Your task to perform on an android device: Open wifi settings Image 0: 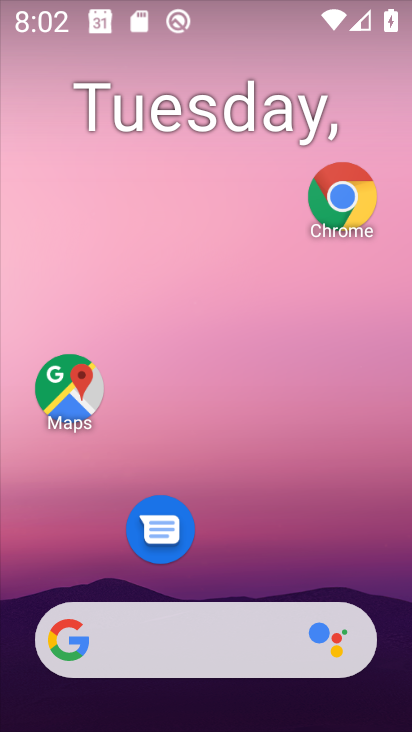
Step 0: drag from (233, 574) to (251, 3)
Your task to perform on an android device: Open wifi settings Image 1: 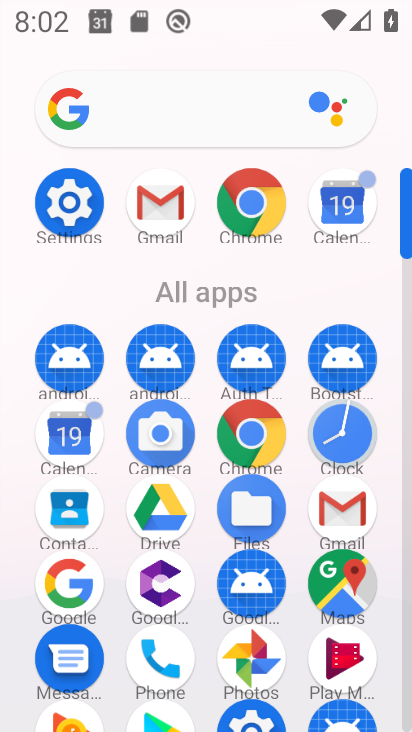
Step 1: click (71, 202)
Your task to perform on an android device: Open wifi settings Image 2: 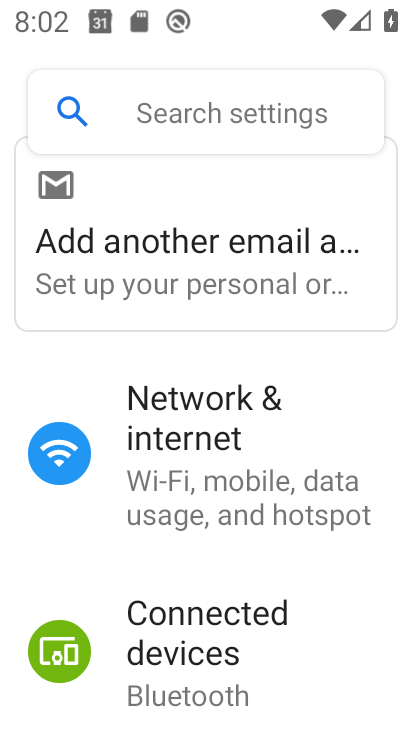
Step 2: click (229, 456)
Your task to perform on an android device: Open wifi settings Image 3: 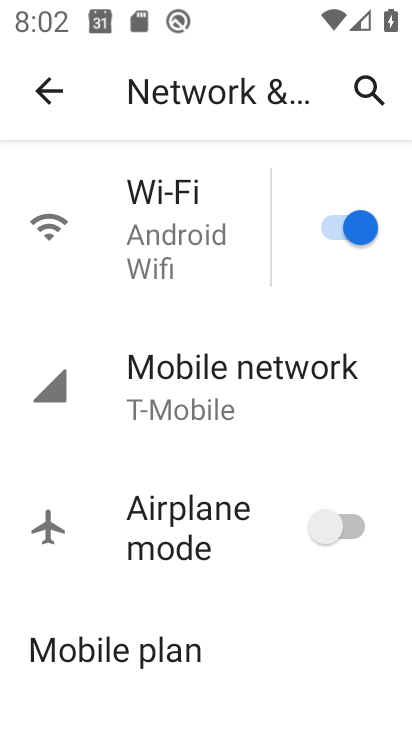
Step 3: click (171, 269)
Your task to perform on an android device: Open wifi settings Image 4: 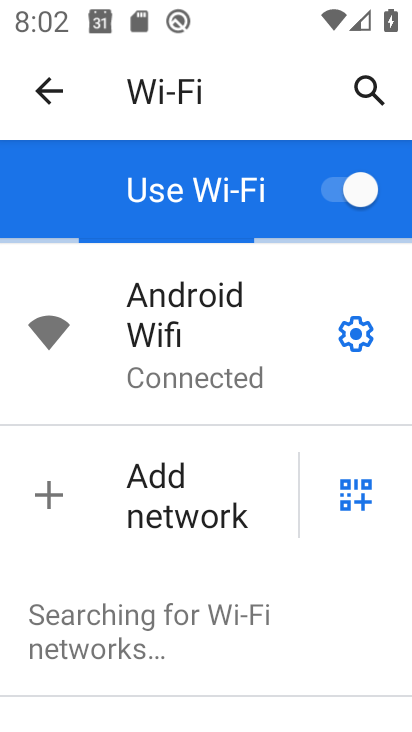
Step 4: task complete